Your task to perform on an android device: How do I get to the nearest Verizon Store? Image 0: 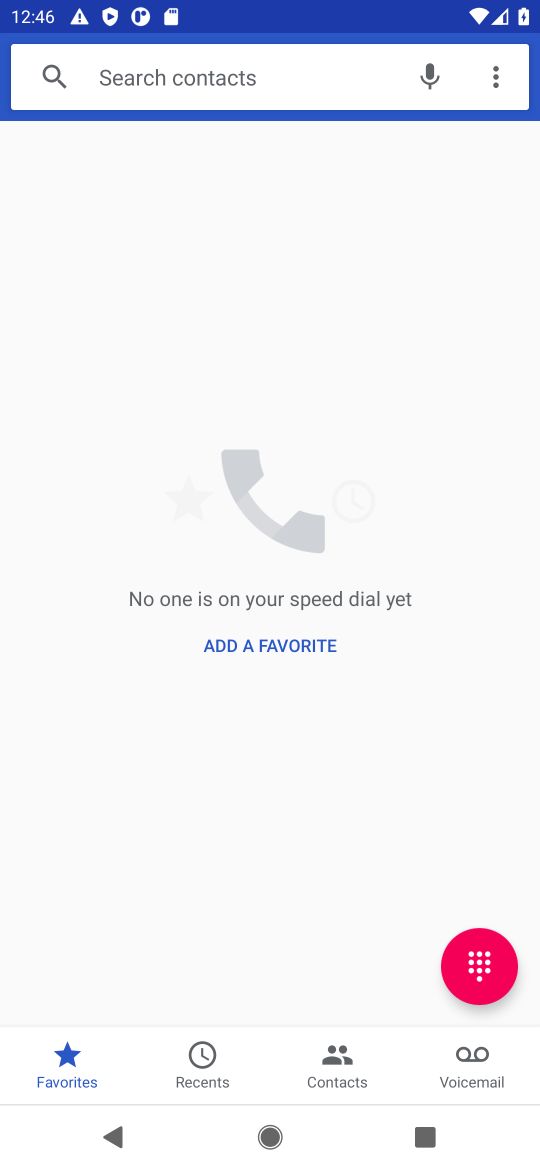
Step 0: press home button
Your task to perform on an android device: How do I get to the nearest Verizon Store? Image 1: 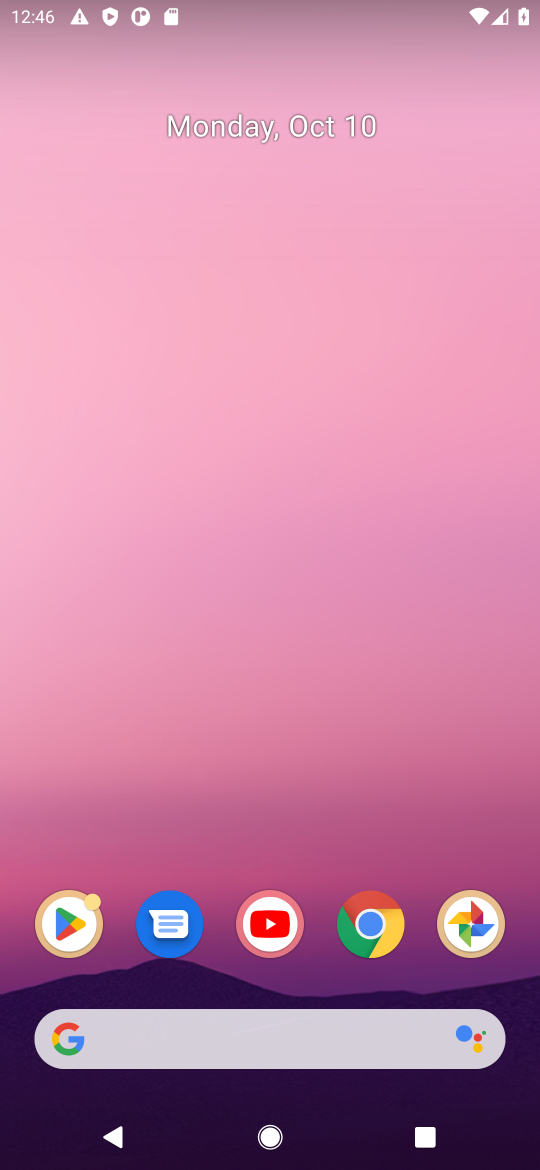
Step 1: drag from (55, 1019) to (265, 225)
Your task to perform on an android device: How do I get to the nearest Verizon Store? Image 2: 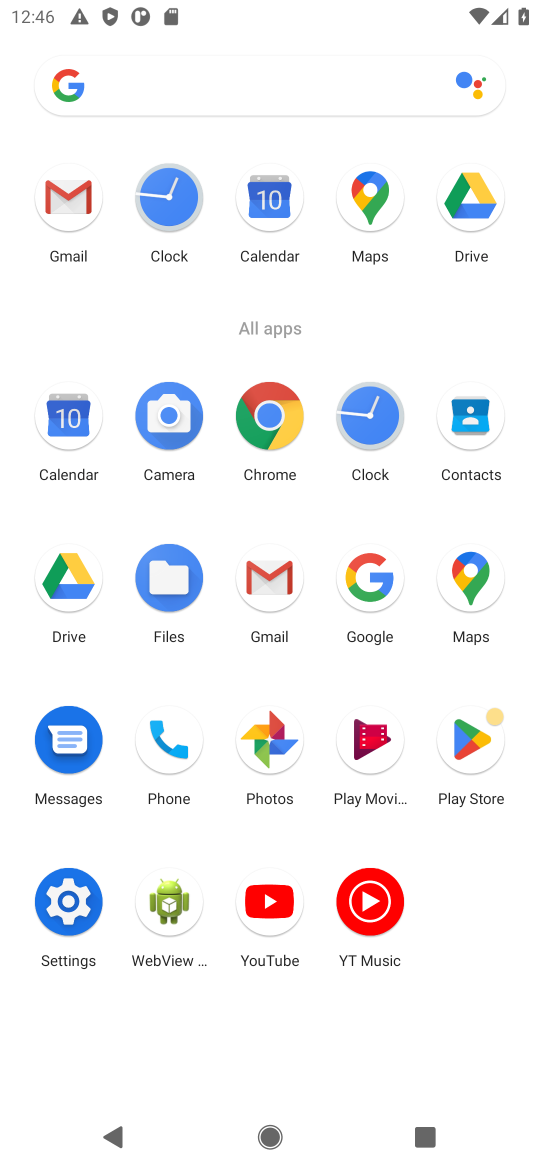
Step 2: click (277, 416)
Your task to perform on an android device: How do I get to the nearest Verizon Store? Image 3: 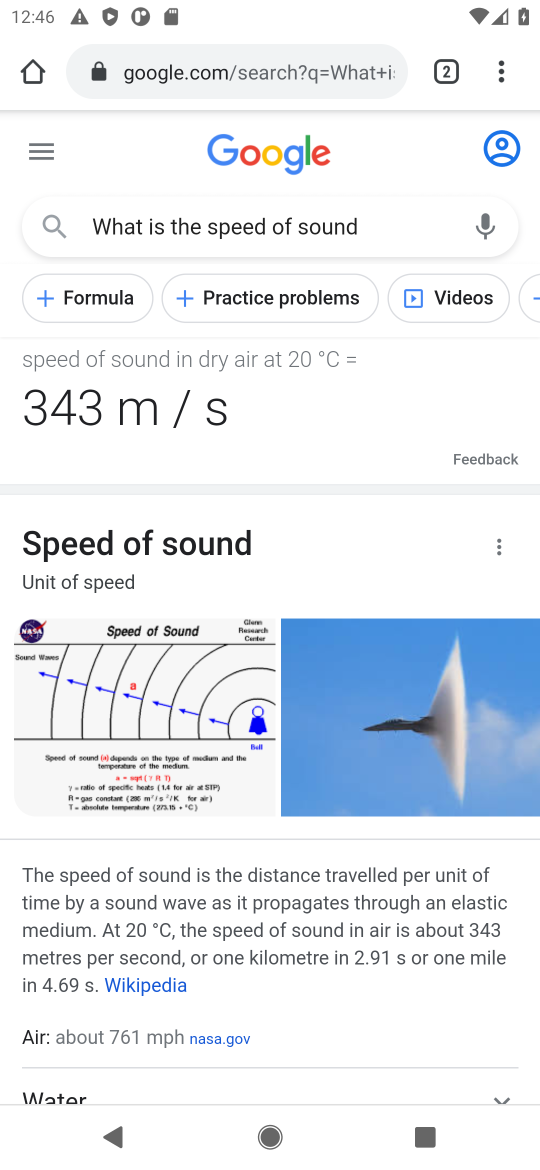
Step 3: click (252, 75)
Your task to perform on an android device: How do I get to the nearest Verizon Store? Image 4: 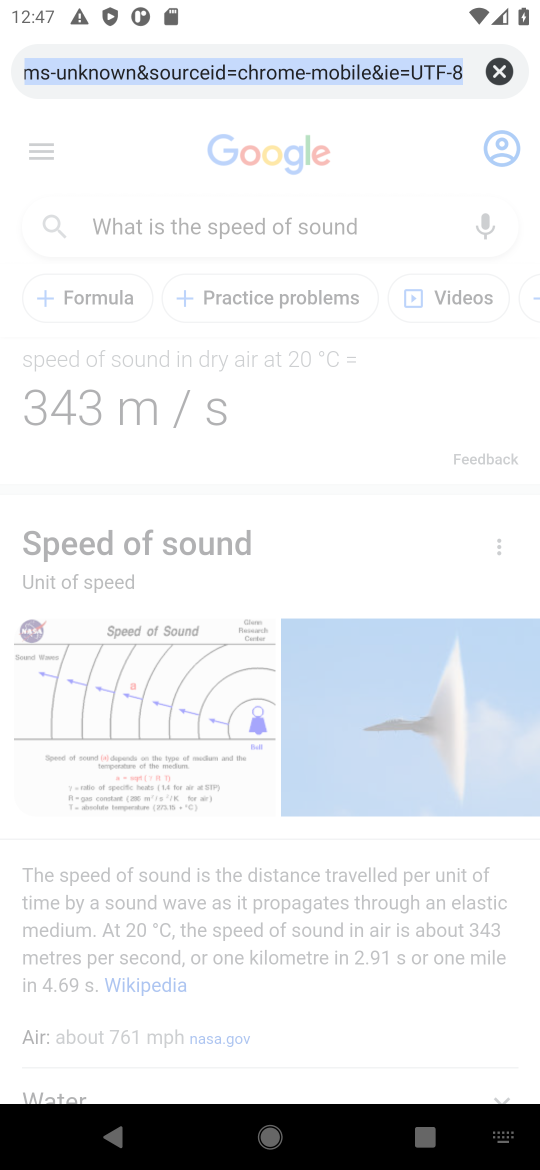
Step 4: click (497, 73)
Your task to perform on an android device: How do I get to the nearest Verizon Store? Image 5: 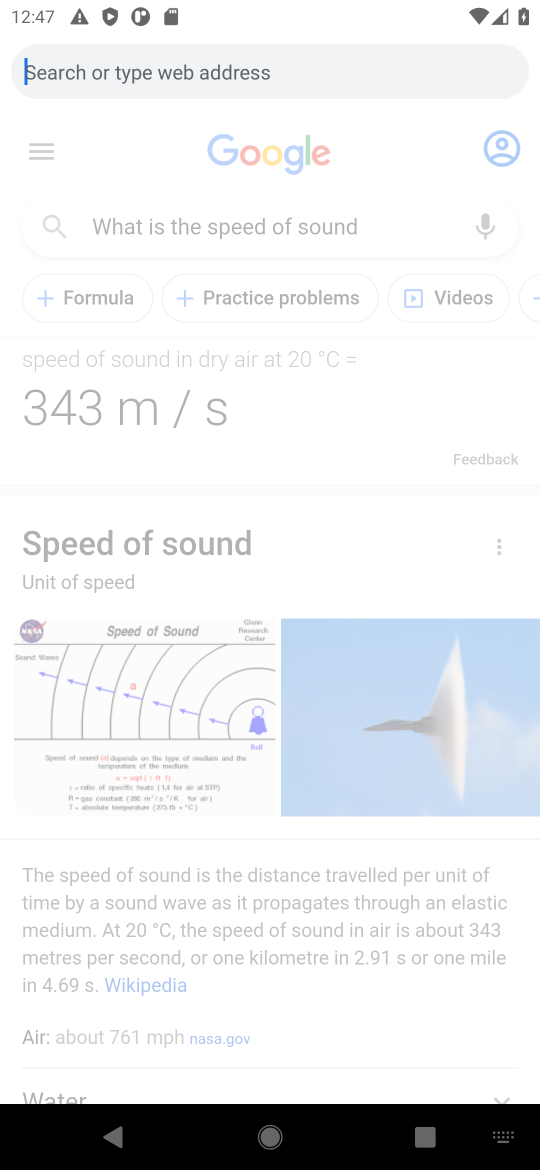
Step 5: type "How do I get to the nearest Verizon Store?"
Your task to perform on an android device: How do I get to the nearest Verizon Store? Image 6: 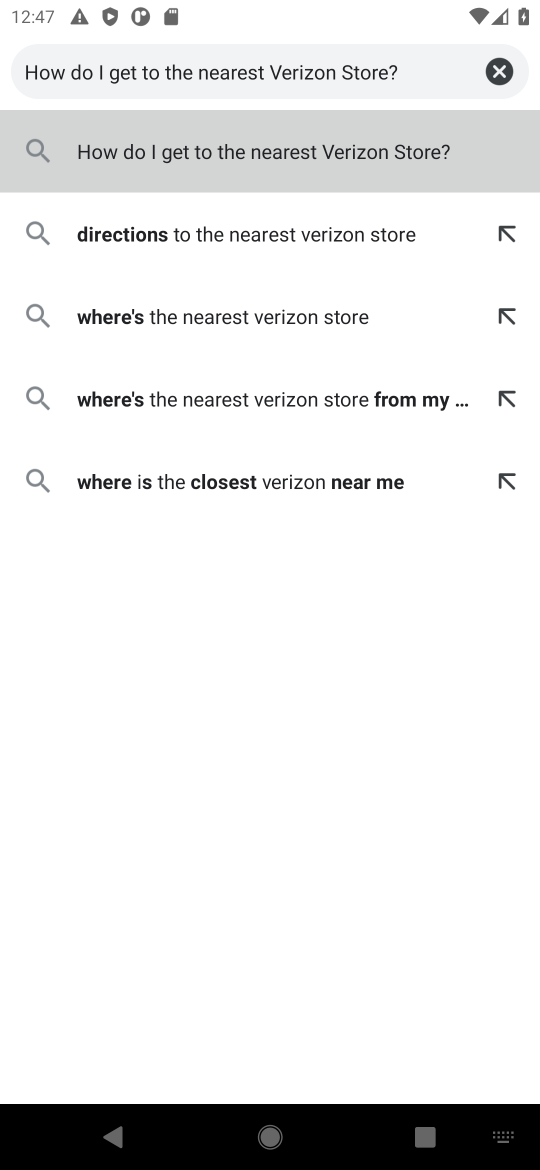
Step 6: press enter
Your task to perform on an android device: How do I get to the nearest Verizon Store? Image 7: 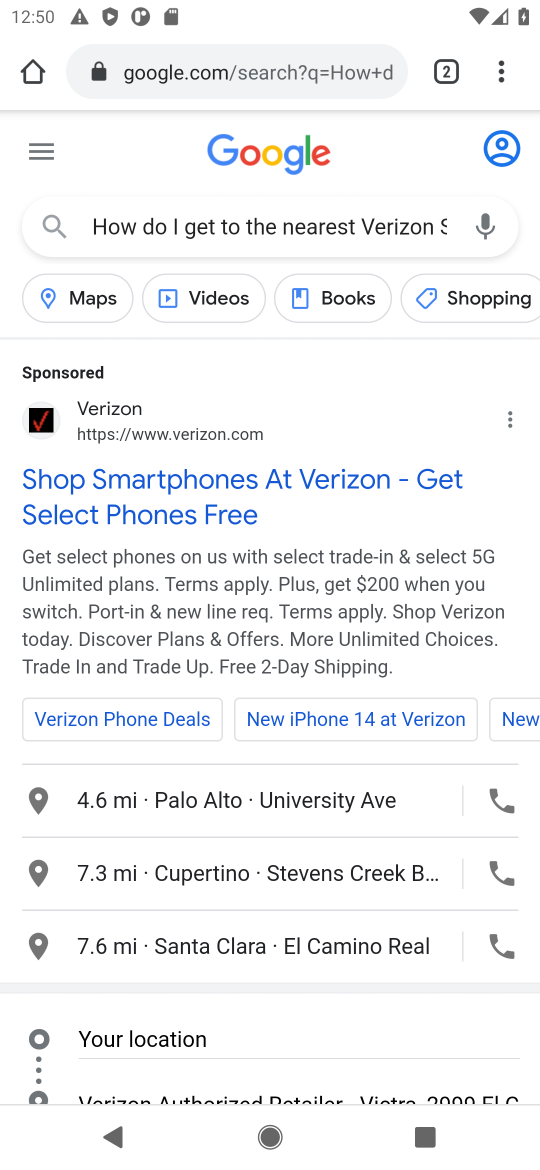
Step 7: task complete